Your task to perform on an android device: Open calendar and show me the first week of next month Image 0: 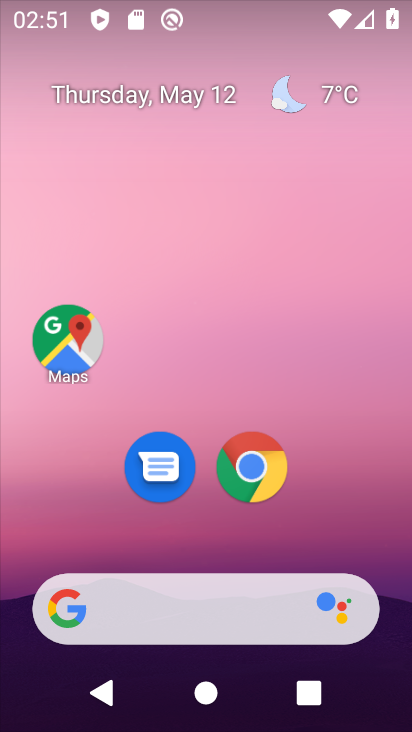
Step 0: drag from (369, 520) to (338, 129)
Your task to perform on an android device: Open calendar and show me the first week of next month Image 1: 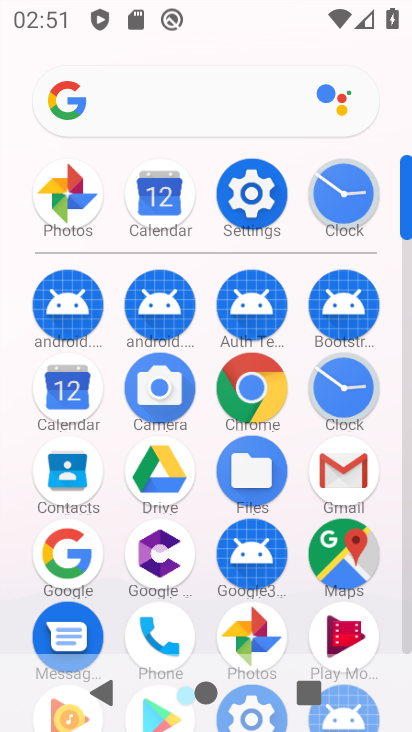
Step 1: click (56, 383)
Your task to perform on an android device: Open calendar and show me the first week of next month Image 2: 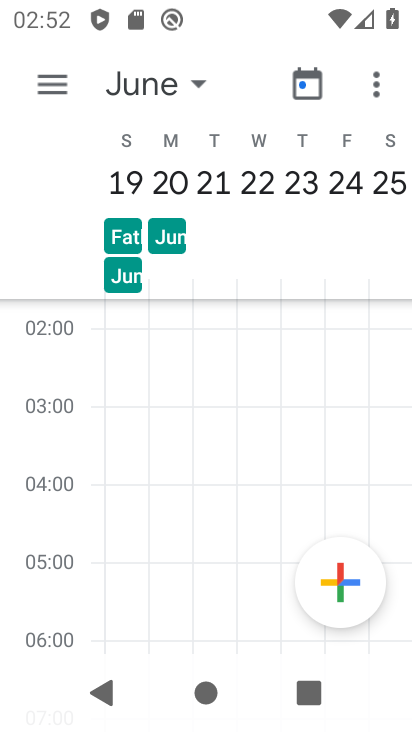
Step 2: click (191, 78)
Your task to perform on an android device: Open calendar and show me the first week of next month Image 3: 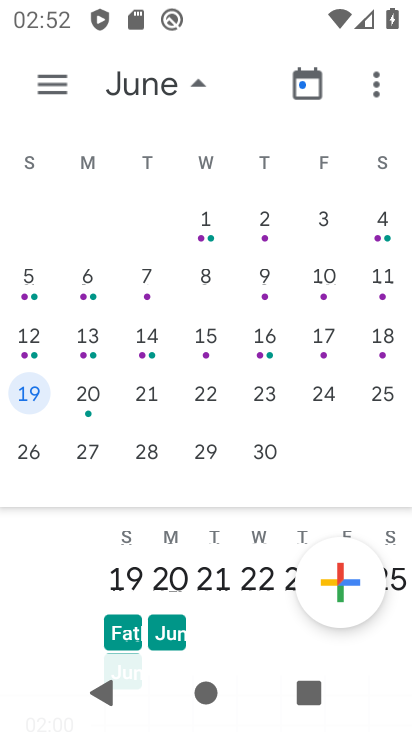
Step 3: click (78, 284)
Your task to perform on an android device: Open calendar and show me the first week of next month Image 4: 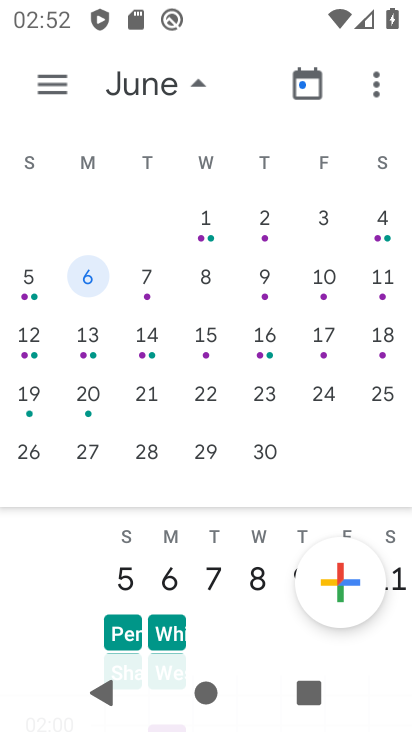
Step 4: task complete